Your task to perform on an android device: Check the settings for the Lyft app Image 0: 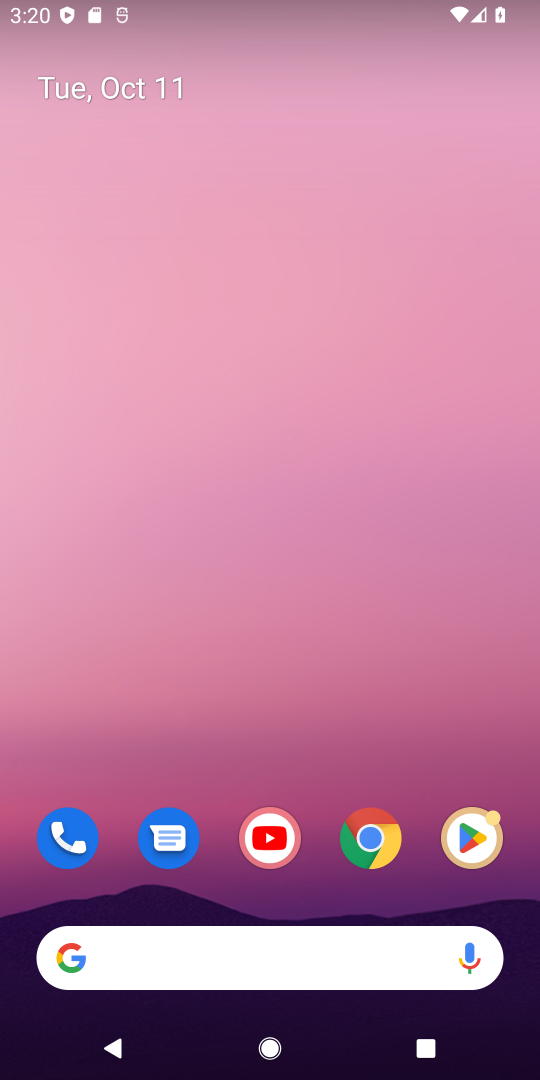
Step 0: drag from (275, 545) to (279, 189)
Your task to perform on an android device: Check the settings for the Lyft app Image 1: 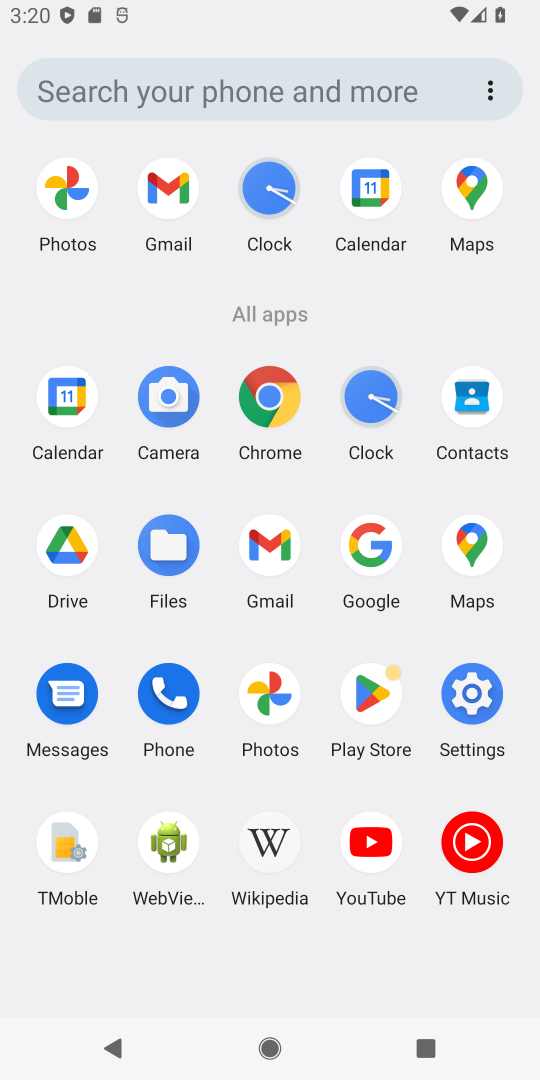
Step 1: task complete